Your task to perform on an android device: Search for a new lawnmower on Lowes.com Image 0: 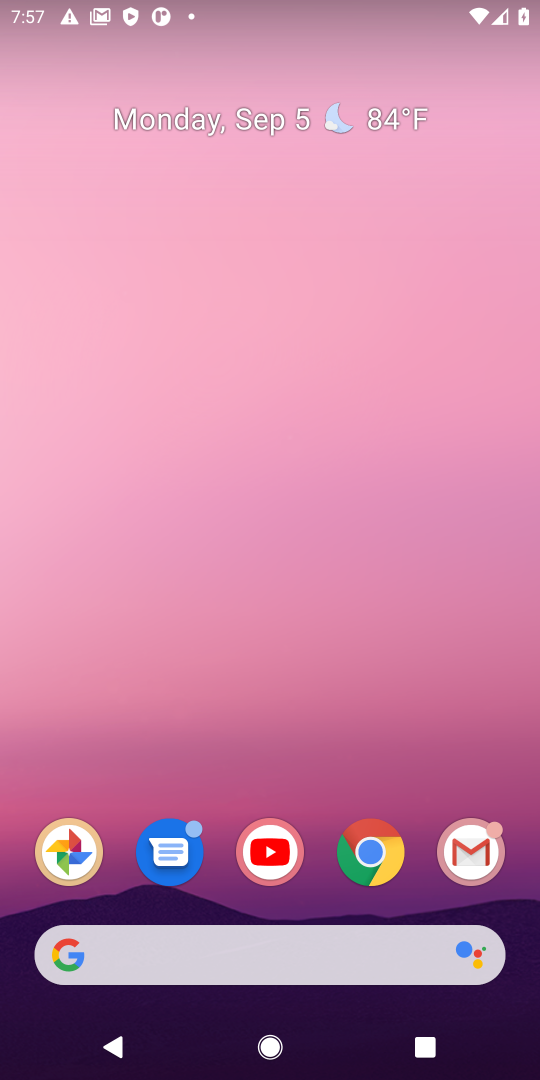
Step 0: click (381, 867)
Your task to perform on an android device: Search for a new lawnmower on Lowes.com Image 1: 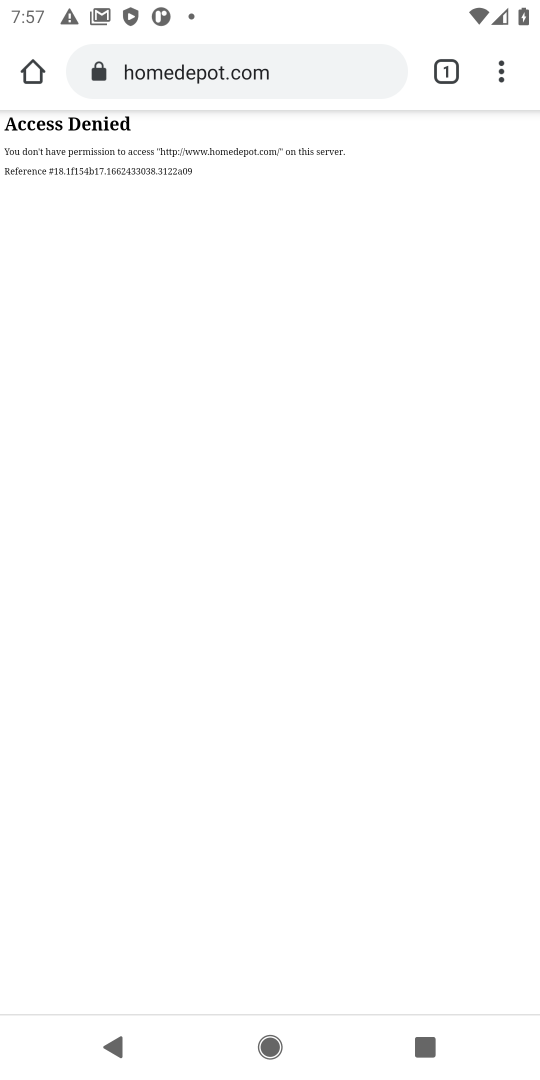
Step 1: click (210, 75)
Your task to perform on an android device: Search for a new lawnmower on Lowes.com Image 2: 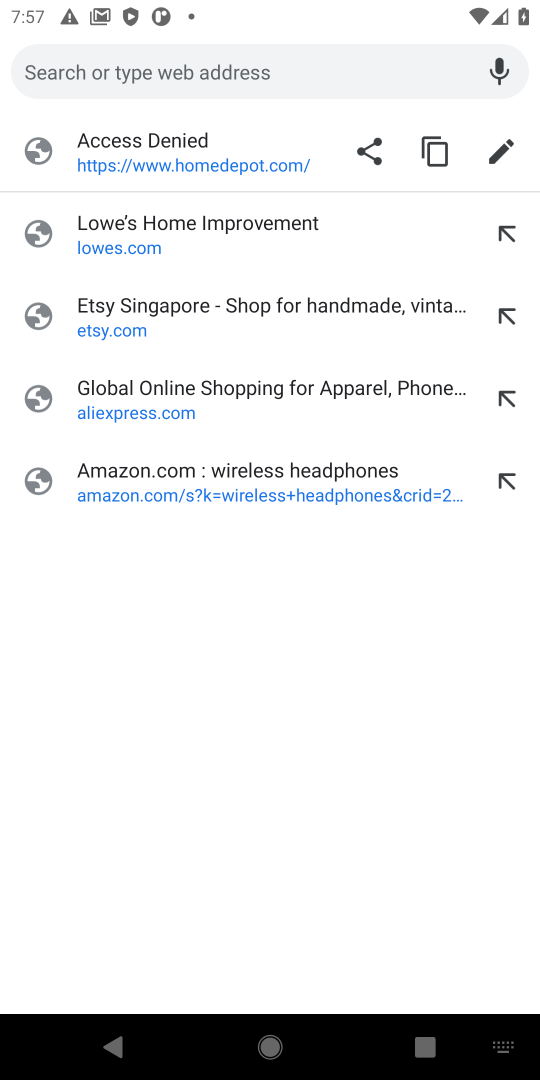
Step 2: type "lowes.com"
Your task to perform on an android device: Search for a new lawnmower on Lowes.com Image 3: 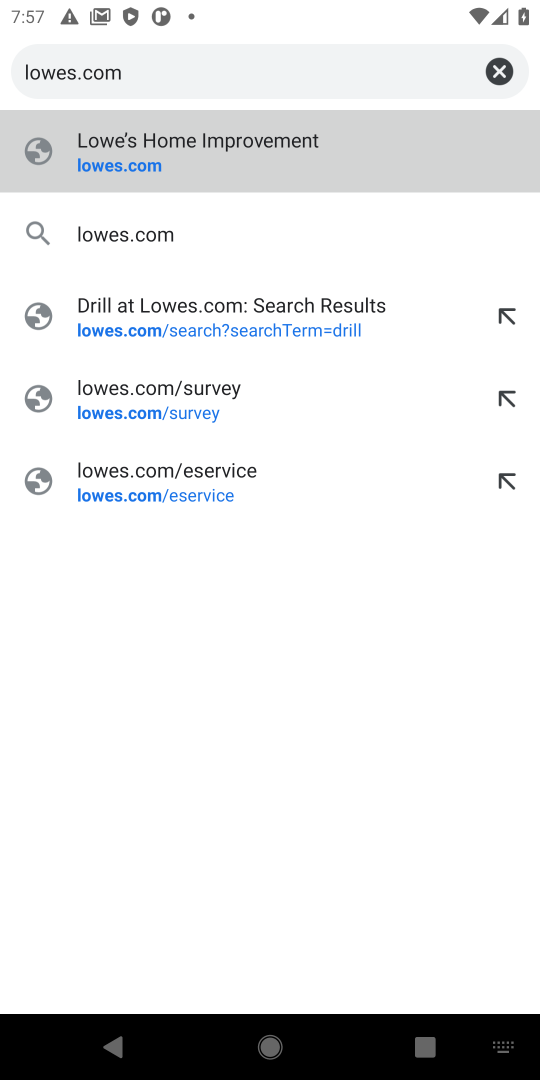
Step 3: press enter
Your task to perform on an android device: Search for a new lawnmower on Lowes.com Image 4: 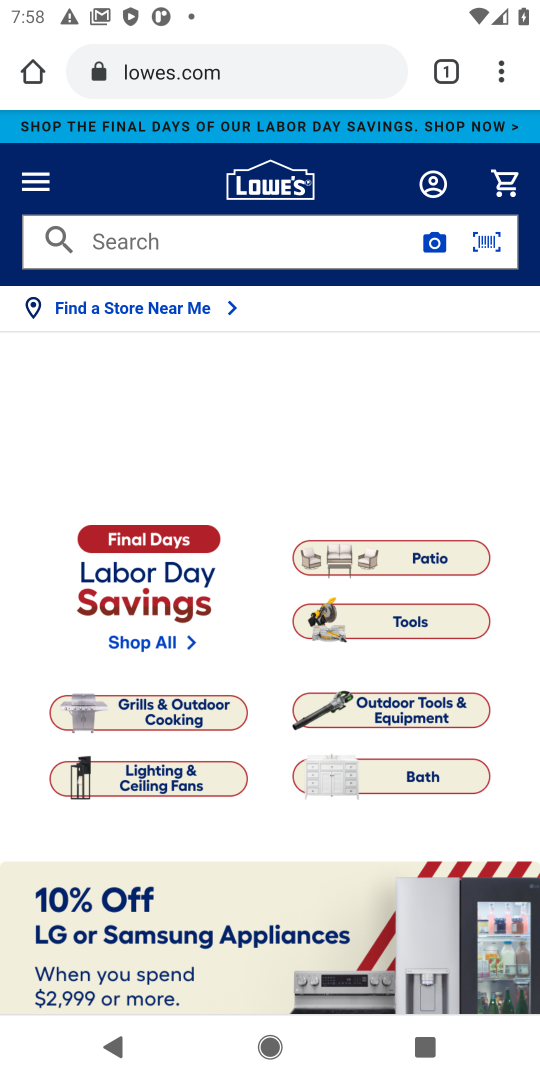
Step 4: click (276, 240)
Your task to perform on an android device: Search for a new lawnmower on Lowes.com Image 5: 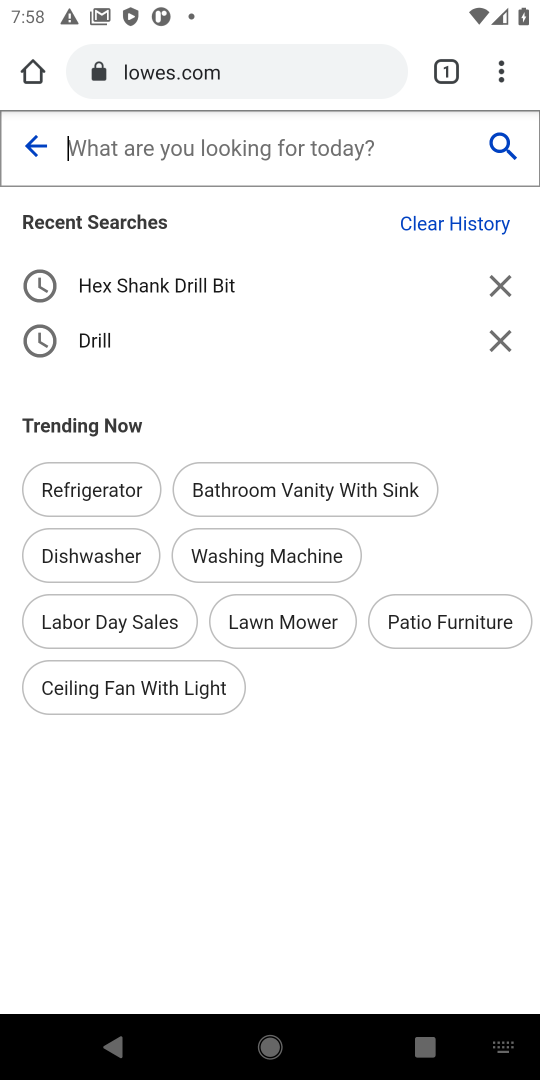
Step 5: type "new lawnmower"
Your task to perform on an android device: Search for a new lawnmower on Lowes.com Image 6: 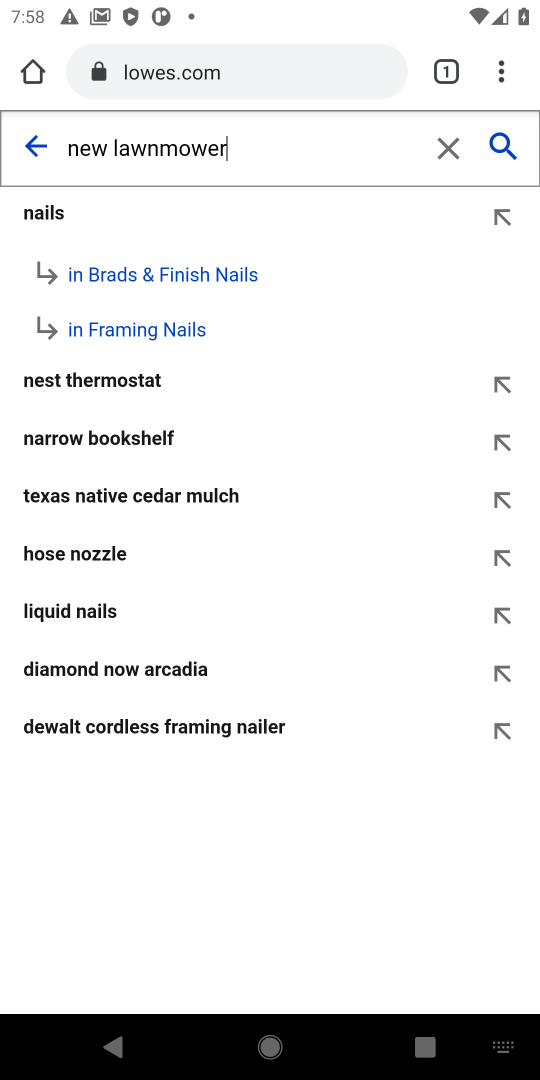
Step 6: type ""
Your task to perform on an android device: Search for a new lawnmower on Lowes.com Image 7: 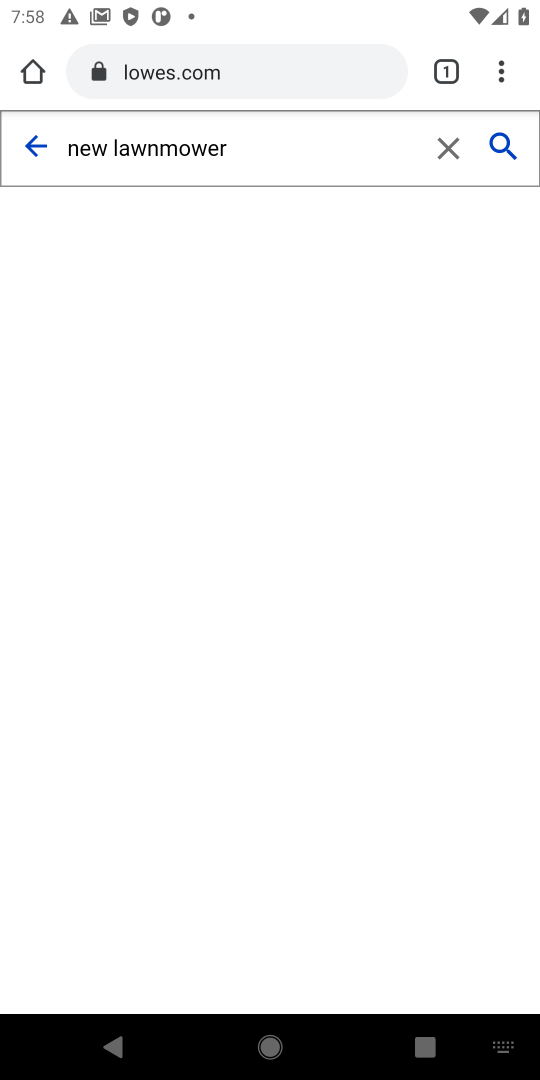
Step 7: press enter
Your task to perform on an android device: Search for a new lawnmower on Lowes.com Image 8: 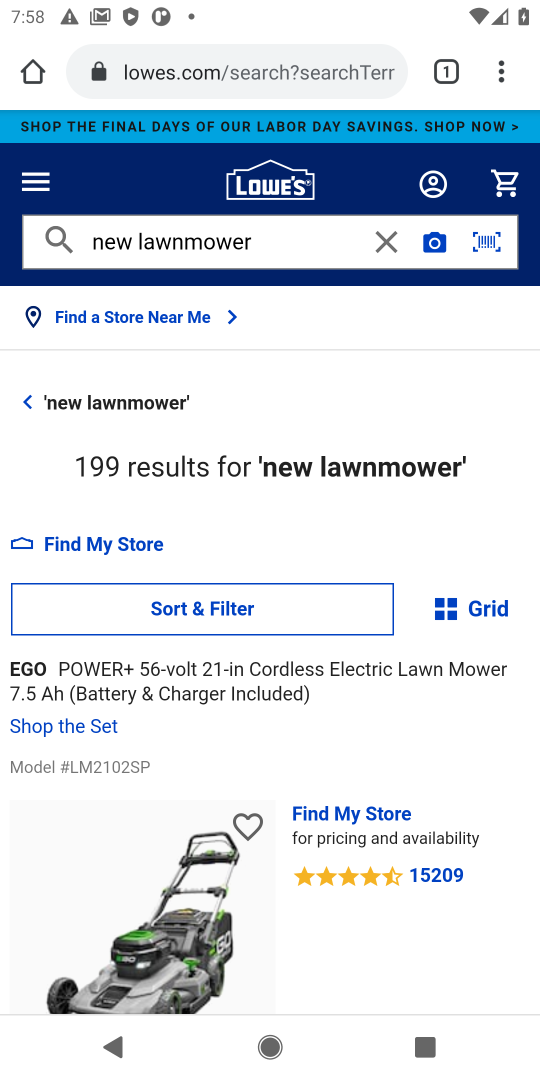
Step 8: click (235, 617)
Your task to perform on an android device: Search for a new lawnmower on Lowes.com Image 9: 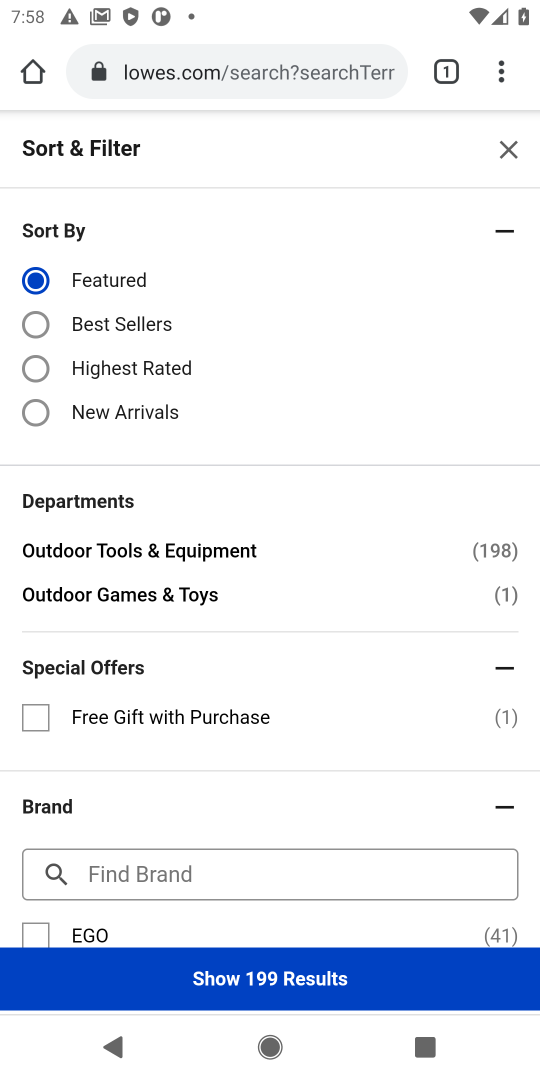
Step 9: click (141, 420)
Your task to perform on an android device: Search for a new lawnmower on Lowes.com Image 10: 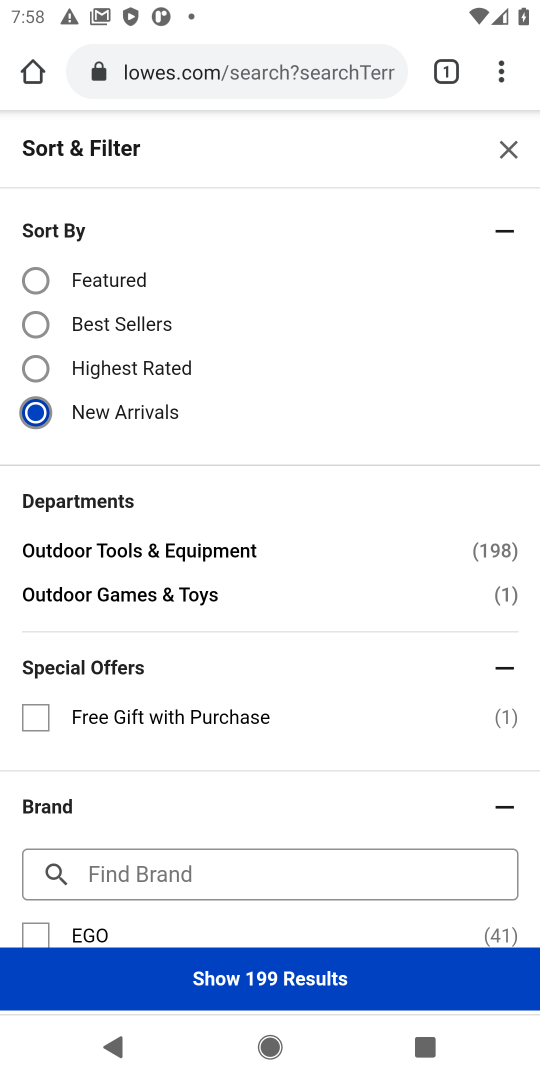
Step 10: click (301, 1001)
Your task to perform on an android device: Search for a new lawnmower on Lowes.com Image 11: 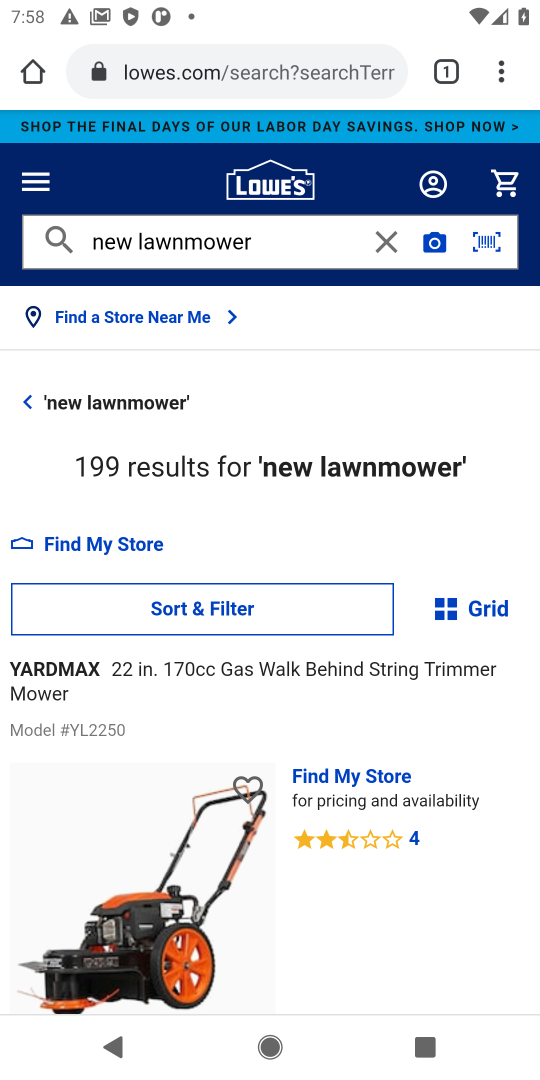
Step 11: task complete